Your task to perform on an android device: set the timer Image 0: 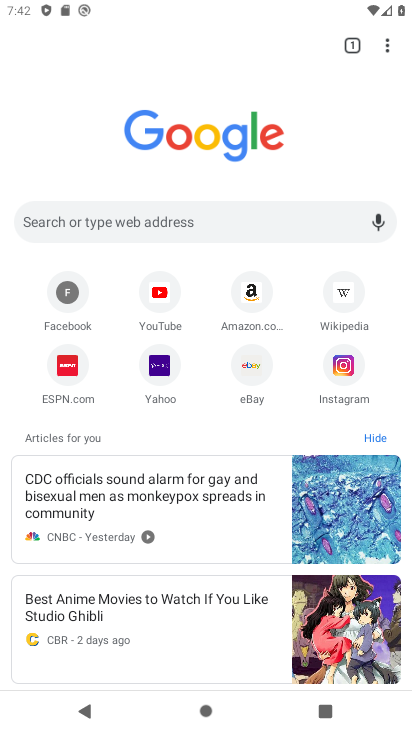
Step 0: press home button
Your task to perform on an android device: set the timer Image 1: 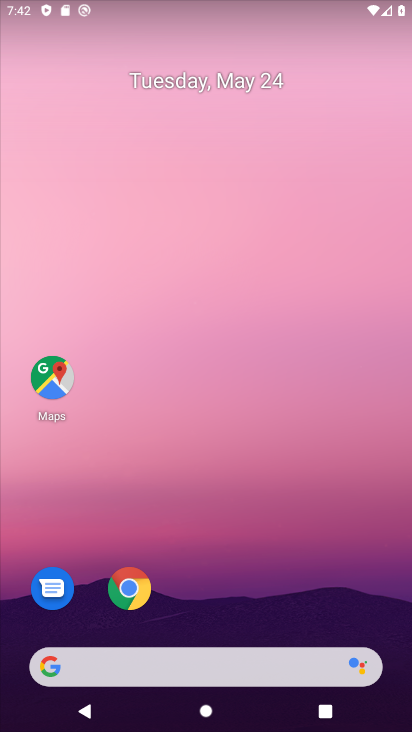
Step 1: drag from (204, 597) to (66, 16)
Your task to perform on an android device: set the timer Image 2: 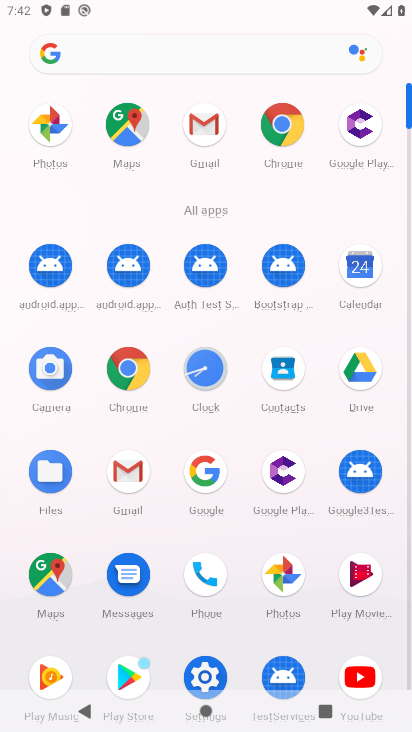
Step 2: click (204, 351)
Your task to perform on an android device: set the timer Image 3: 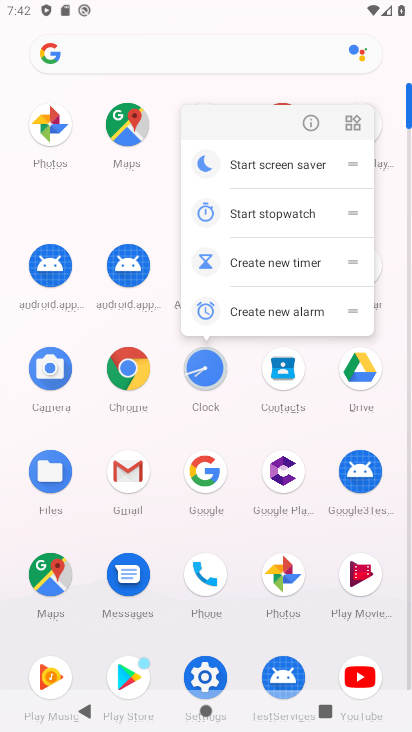
Step 3: click (315, 118)
Your task to perform on an android device: set the timer Image 4: 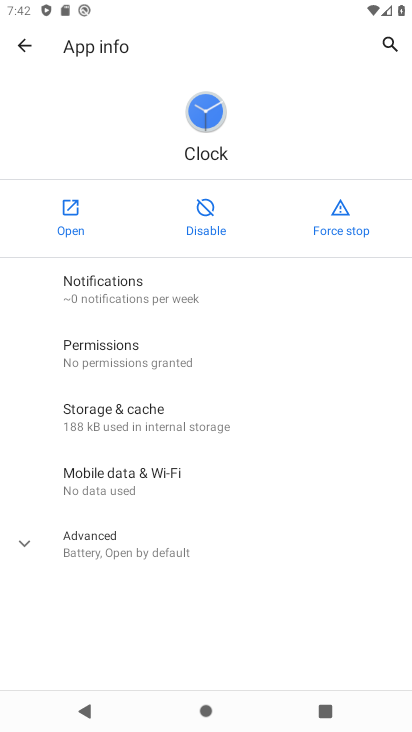
Step 4: click (77, 234)
Your task to perform on an android device: set the timer Image 5: 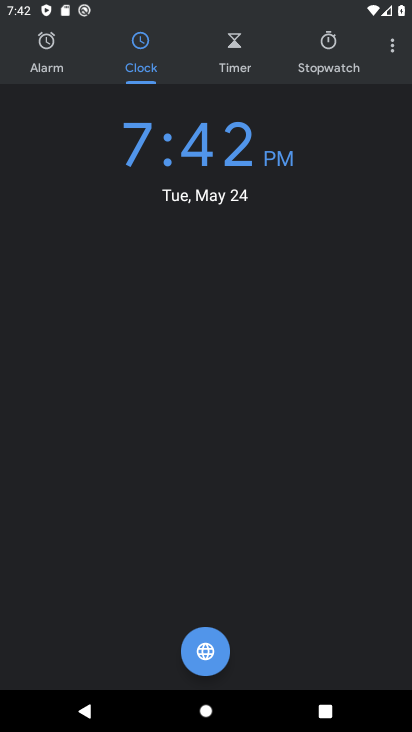
Step 5: click (223, 67)
Your task to perform on an android device: set the timer Image 6: 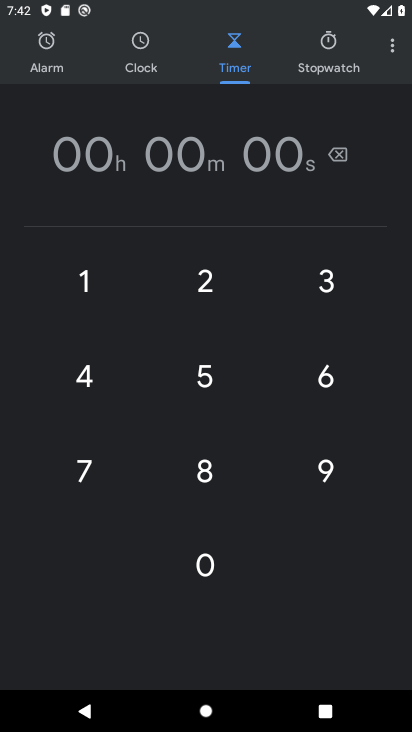
Step 6: click (192, 285)
Your task to perform on an android device: set the timer Image 7: 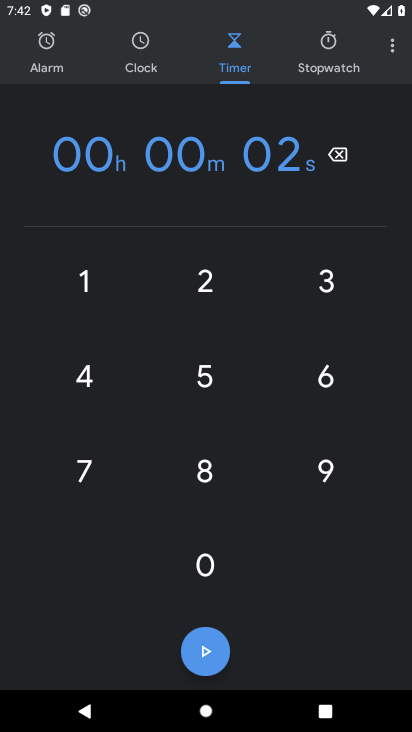
Step 7: click (326, 264)
Your task to perform on an android device: set the timer Image 8: 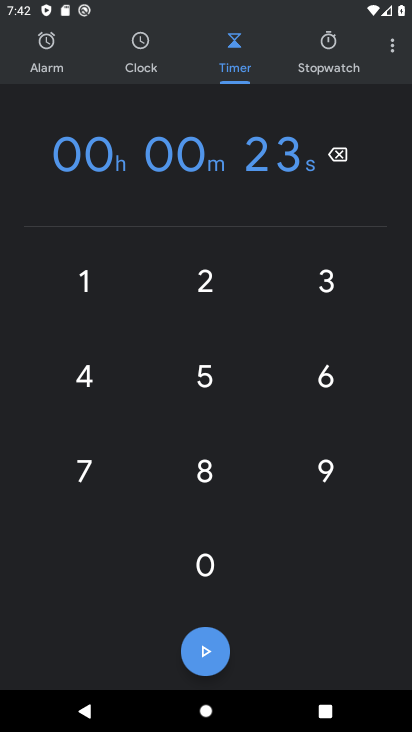
Step 8: click (211, 639)
Your task to perform on an android device: set the timer Image 9: 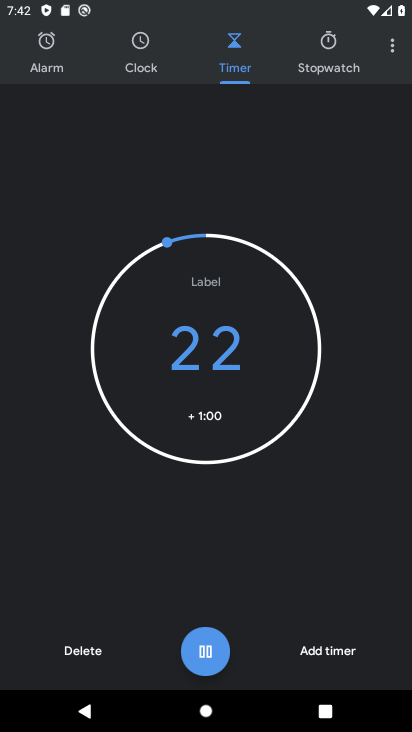
Step 9: task complete